Your task to perform on an android device: empty trash in the gmail app Image 0: 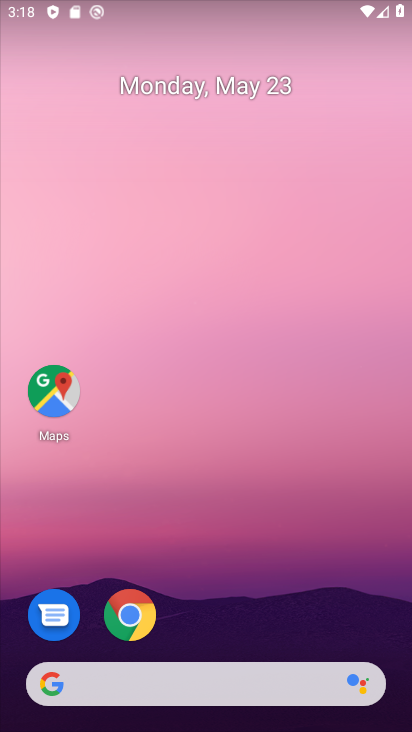
Step 0: drag from (305, 528) to (256, 34)
Your task to perform on an android device: empty trash in the gmail app Image 1: 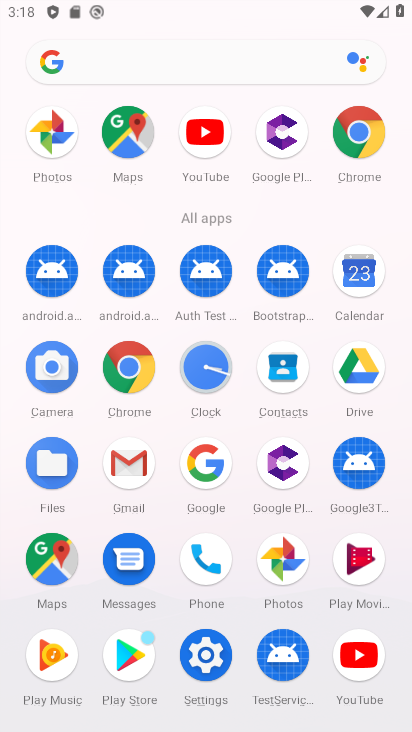
Step 1: drag from (4, 583) to (0, 135)
Your task to perform on an android device: empty trash in the gmail app Image 2: 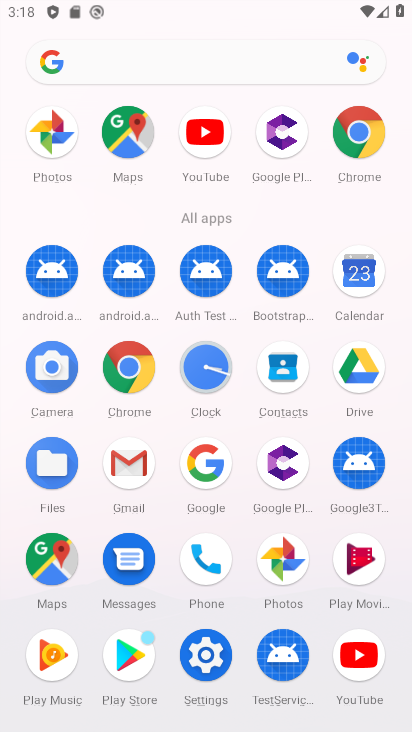
Step 2: click (124, 362)
Your task to perform on an android device: empty trash in the gmail app Image 3: 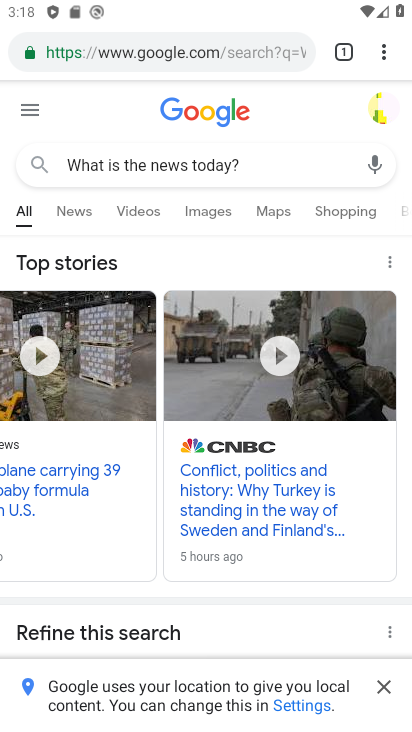
Step 3: press back button
Your task to perform on an android device: empty trash in the gmail app Image 4: 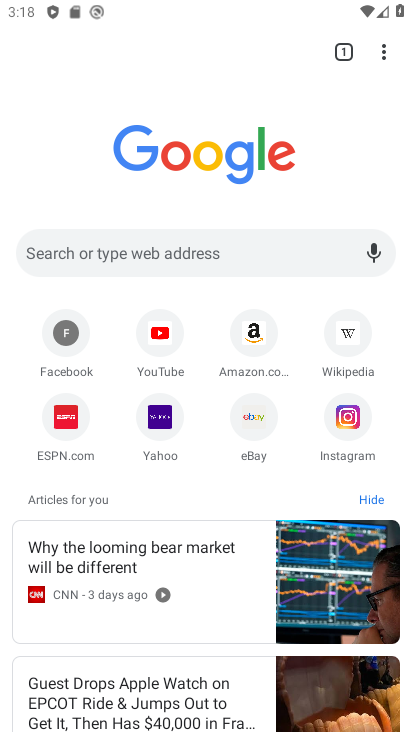
Step 4: press back button
Your task to perform on an android device: empty trash in the gmail app Image 5: 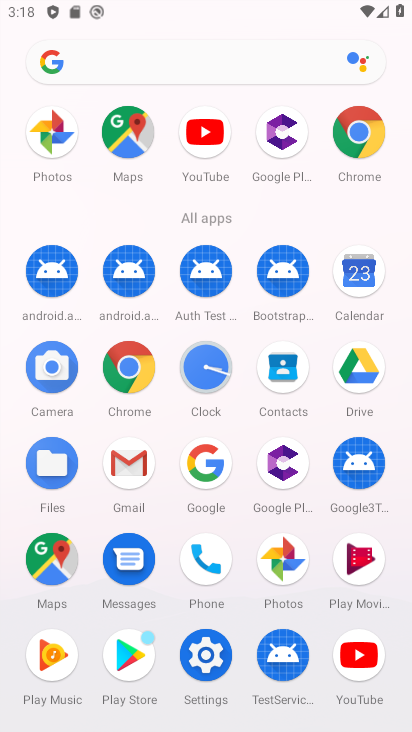
Step 5: click (127, 456)
Your task to perform on an android device: empty trash in the gmail app Image 6: 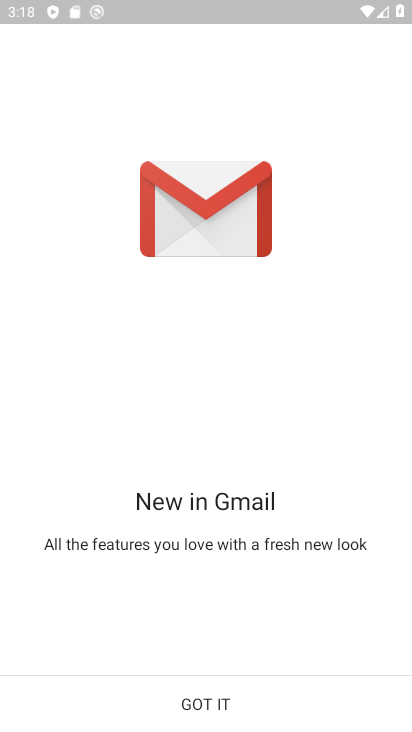
Step 6: click (189, 681)
Your task to perform on an android device: empty trash in the gmail app Image 7: 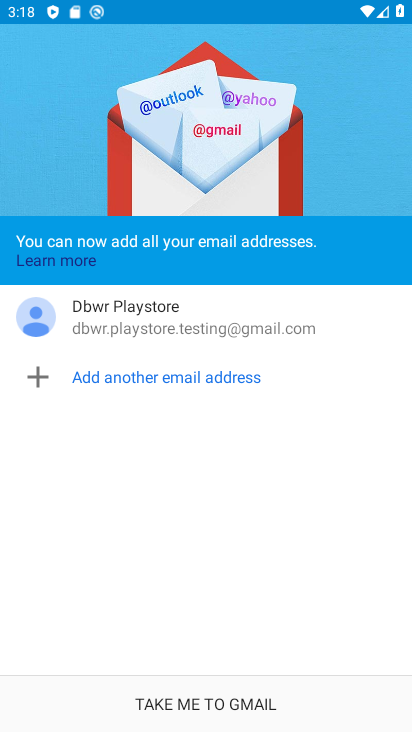
Step 7: click (207, 704)
Your task to perform on an android device: empty trash in the gmail app Image 8: 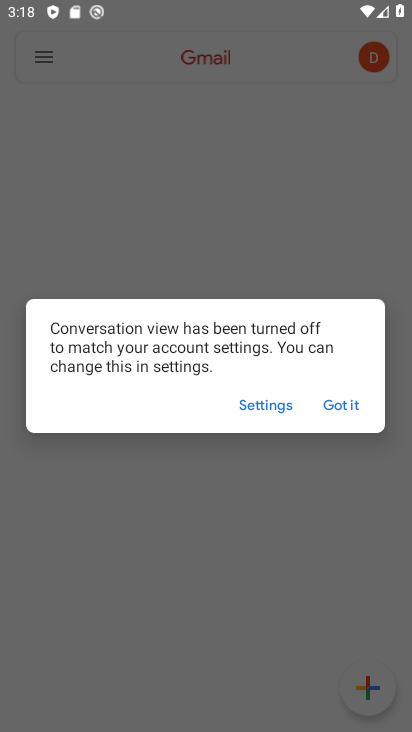
Step 8: click (345, 415)
Your task to perform on an android device: empty trash in the gmail app Image 9: 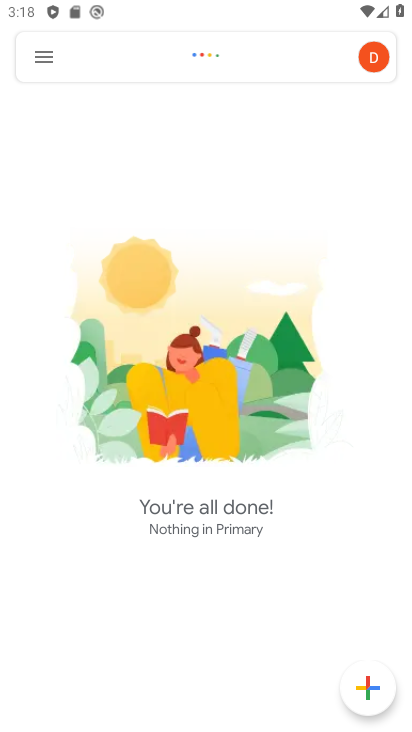
Step 9: click (42, 43)
Your task to perform on an android device: empty trash in the gmail app Image 10: 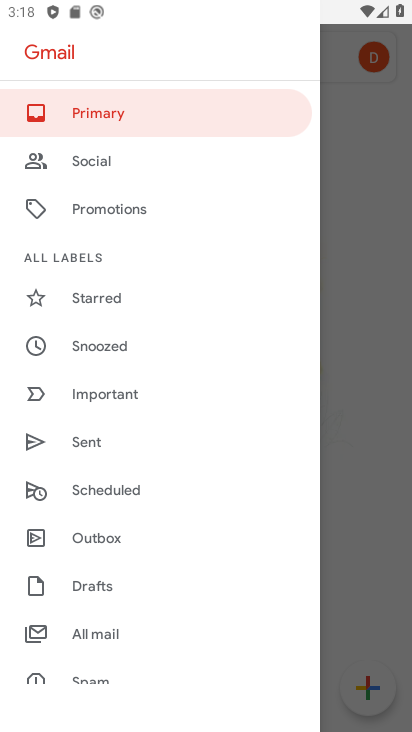
Step 10: drag from (200, 557) to (190, 150)
Your task to perform on an android device: empty trash in the gmail app Image 11: 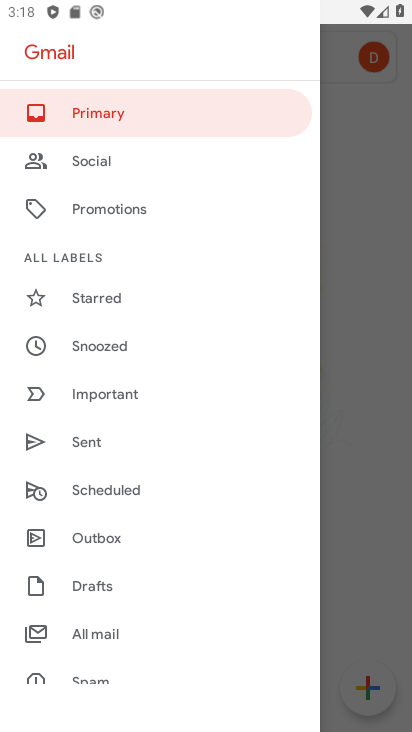
Step 11: drag from (155, 553) to (154, 159)
Your task to perform on an android device: empty trash in the gmail app Image 12: 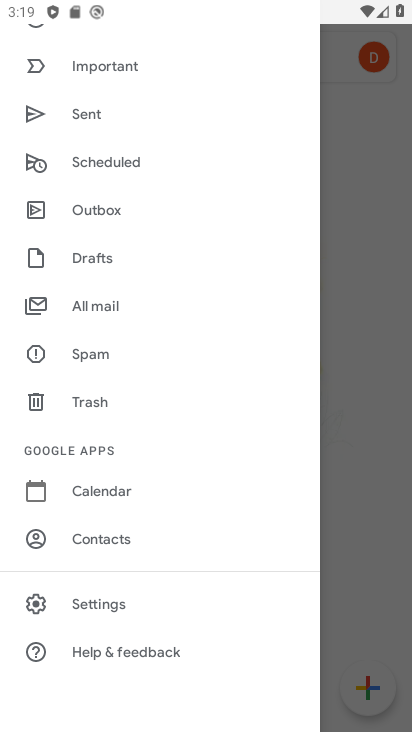
Step 12: click (90, 392)
Your task to perform on an android device: empty trash in the gmail app Image 13: 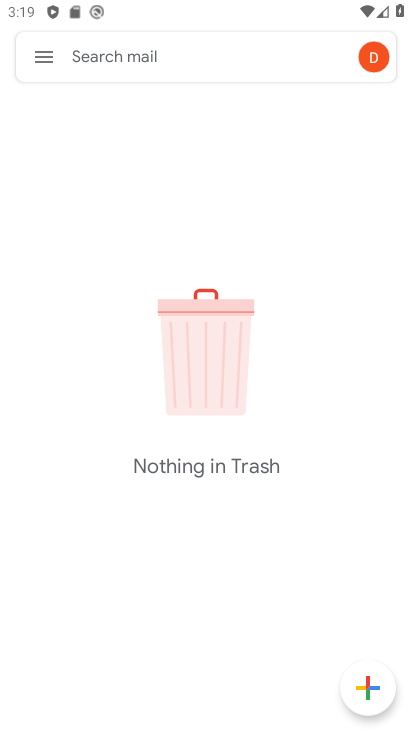
Step 13: task complete